Your task to perform on an android device: turn notification dots off Image 0: 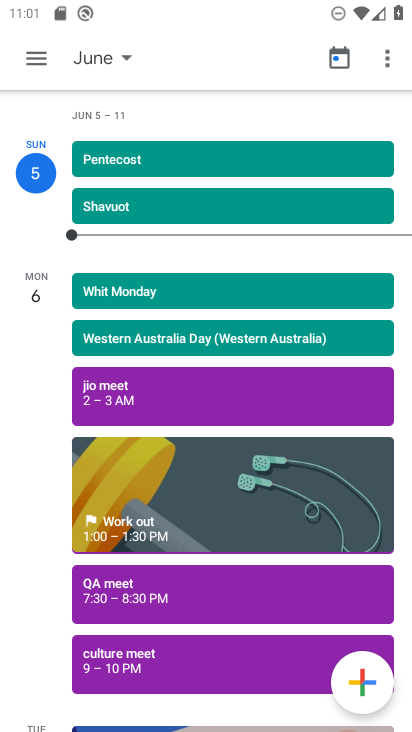
Step 0: press back button
Your task to perform on an android device: turn notification dots off Image 1: 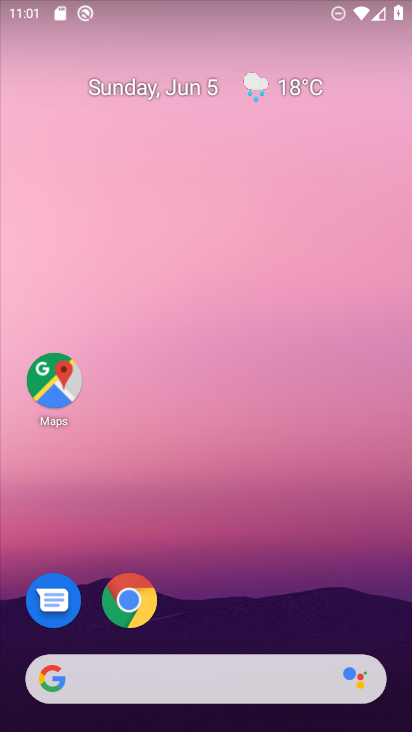
Step 1: drag from (204, 613) to (267, 96)
Your task to perform on an android device: turn notification dots off Image 2: 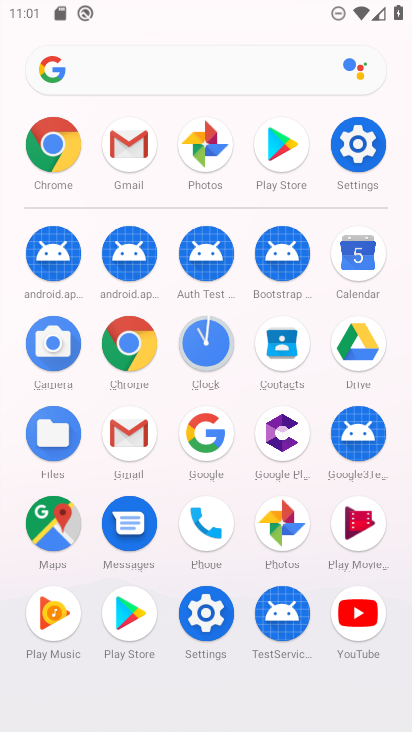
Step 2: click (362, 146)
Your task to perform on an android device: turn notification dots off Image 3: 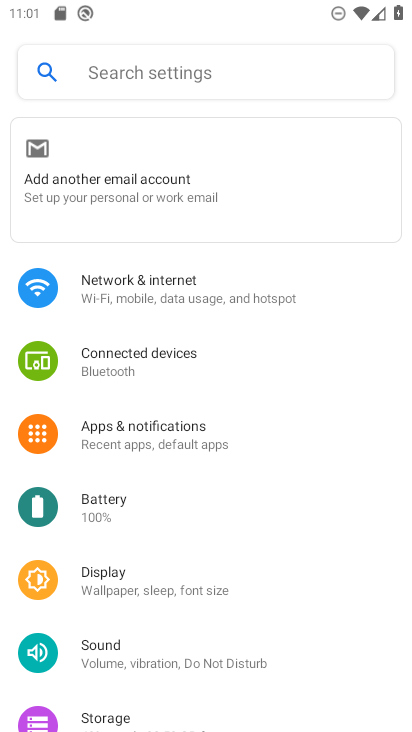
Step 3: click (169, 432)
Your task to perform on an android device: turn notification dots off Image 4: 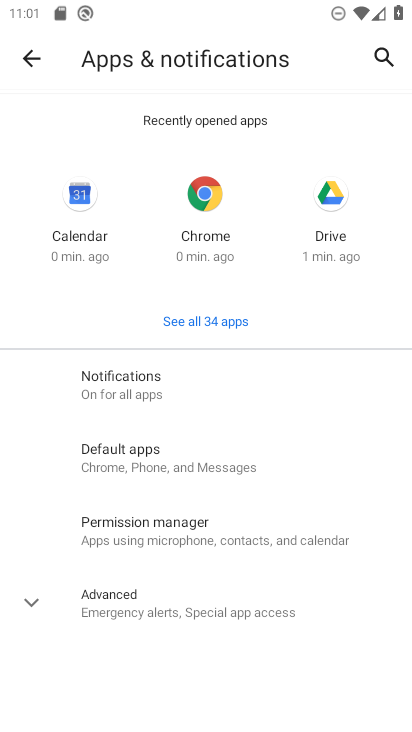
Step 4: click (183, 389)
Your task to perform on an android device: turn notification dots off Image 5: 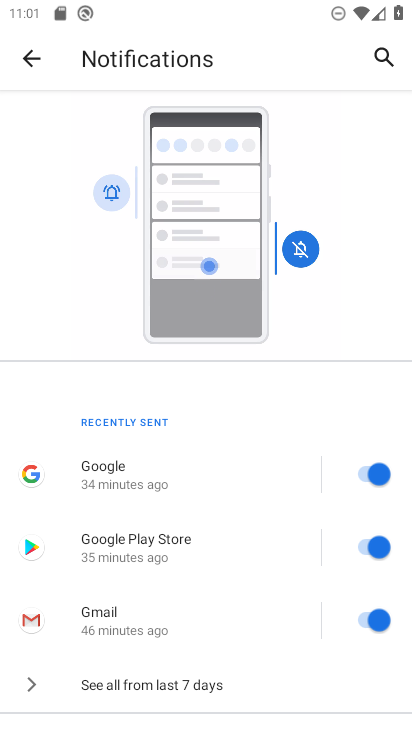
Step 5: drag from (170, 635) to (259, 180)
Your task to perform on an android device: turn notification dots off Image 6: 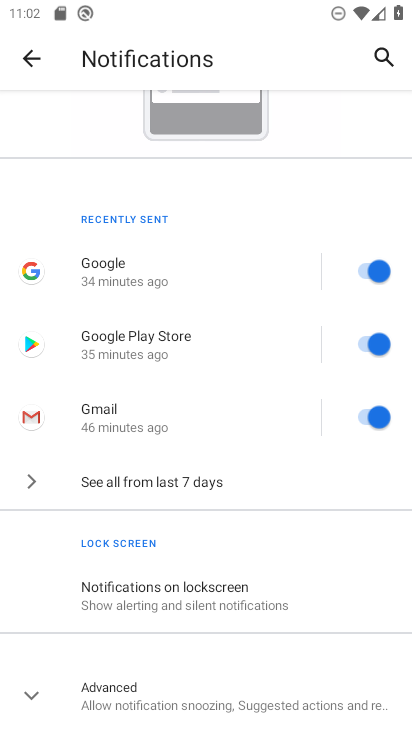
Step 6: click (165, 684)
Your task to perform on an android device: turn notification dots off Image 7: 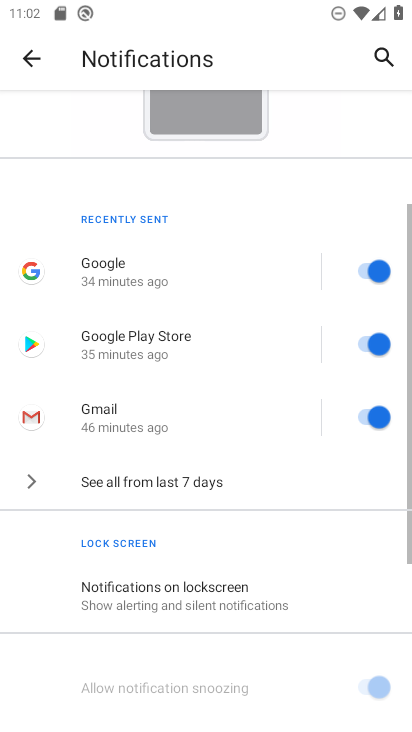
Step 7: drag from (166, 680) to (271, 209)
Your task to perform on an android device: turn notification dots off Image 8: 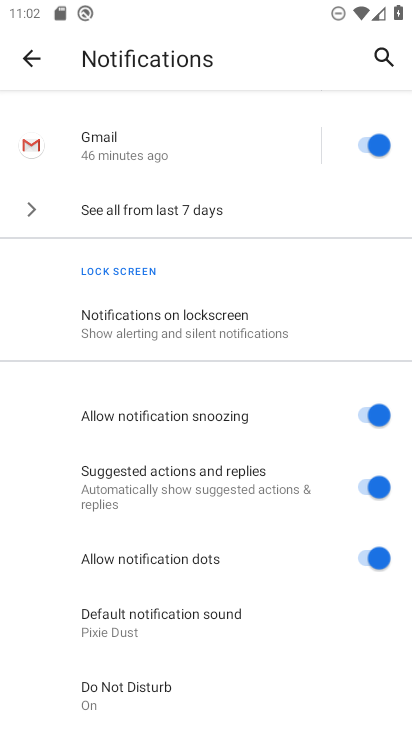
Step 8: click (377, 557)
Your task to perform on an android device: turn notification dots off Image 9: 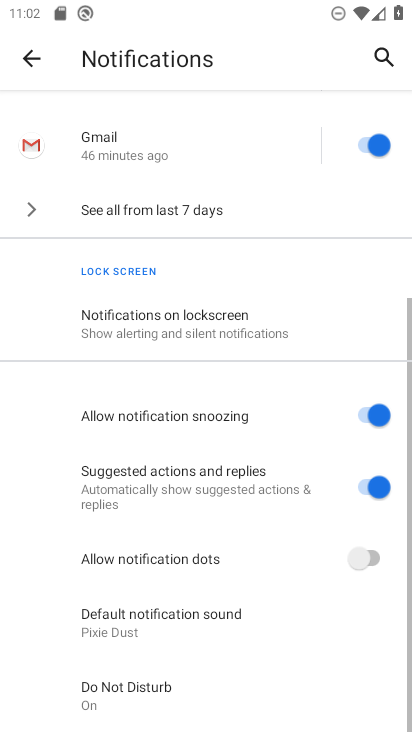
Step 9: task complete